Your task to perform on an android device: open app "Truecaller" (install if not already installed) and go to login screen Image 0: 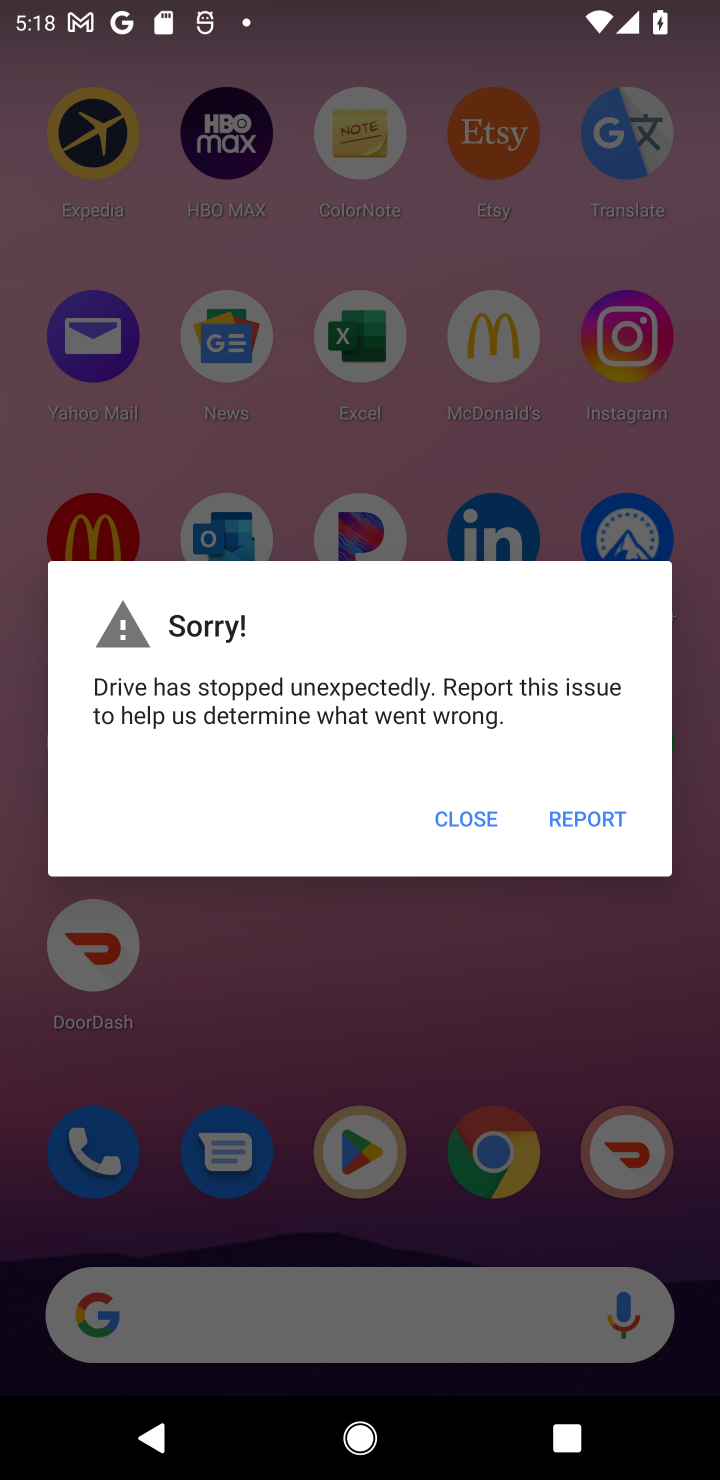
Step 0: click (457, 795)
Your task to perform on an android device: open app "Truecaller" (install if not already installed) and go to login screen Image 1: 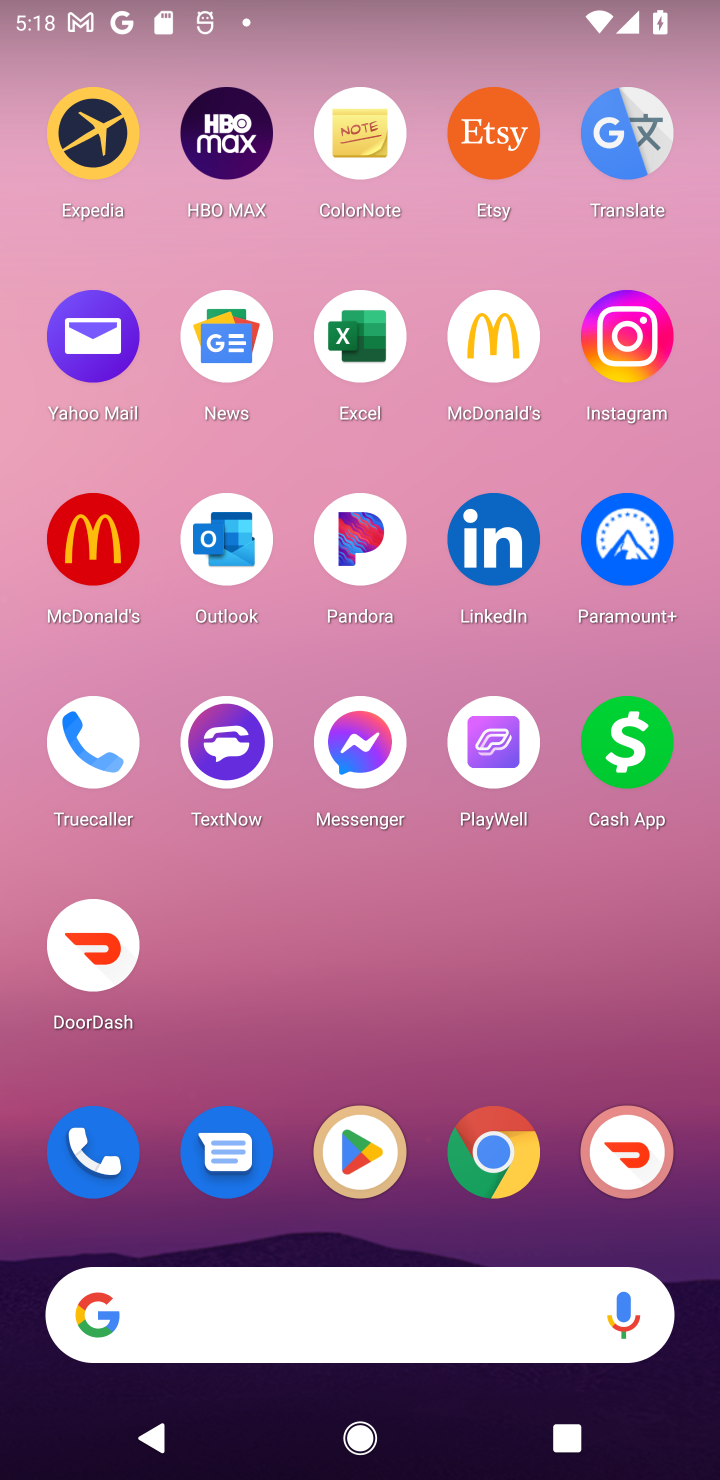
Step 1: click (378, 1184)
Your task to perform on an android device: open app "Truecaller" (install if not already installed) and go to login screen Image 2: 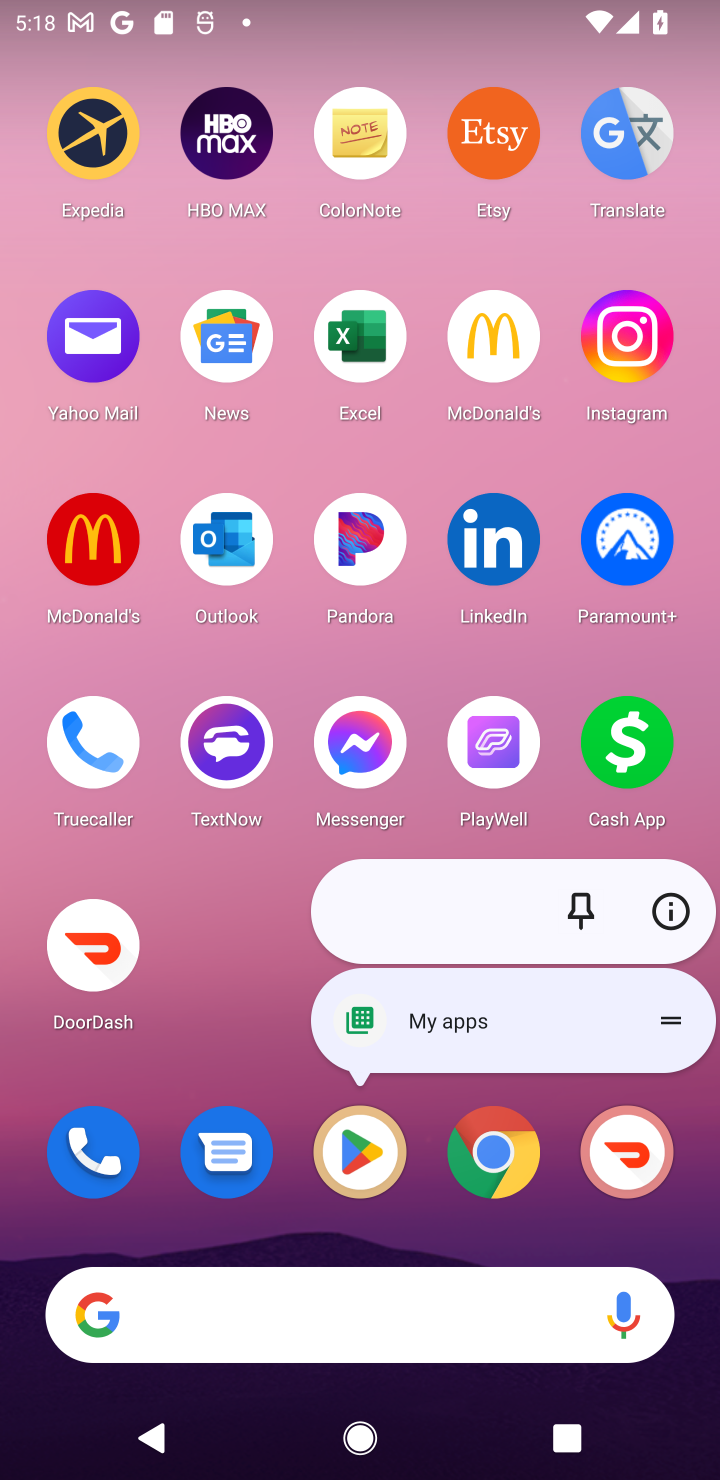
Step 2: click (381, 1160)
Your task to perform on an android device: open app "Truecaller" (install if not already installed) and go to login screen Image 3: 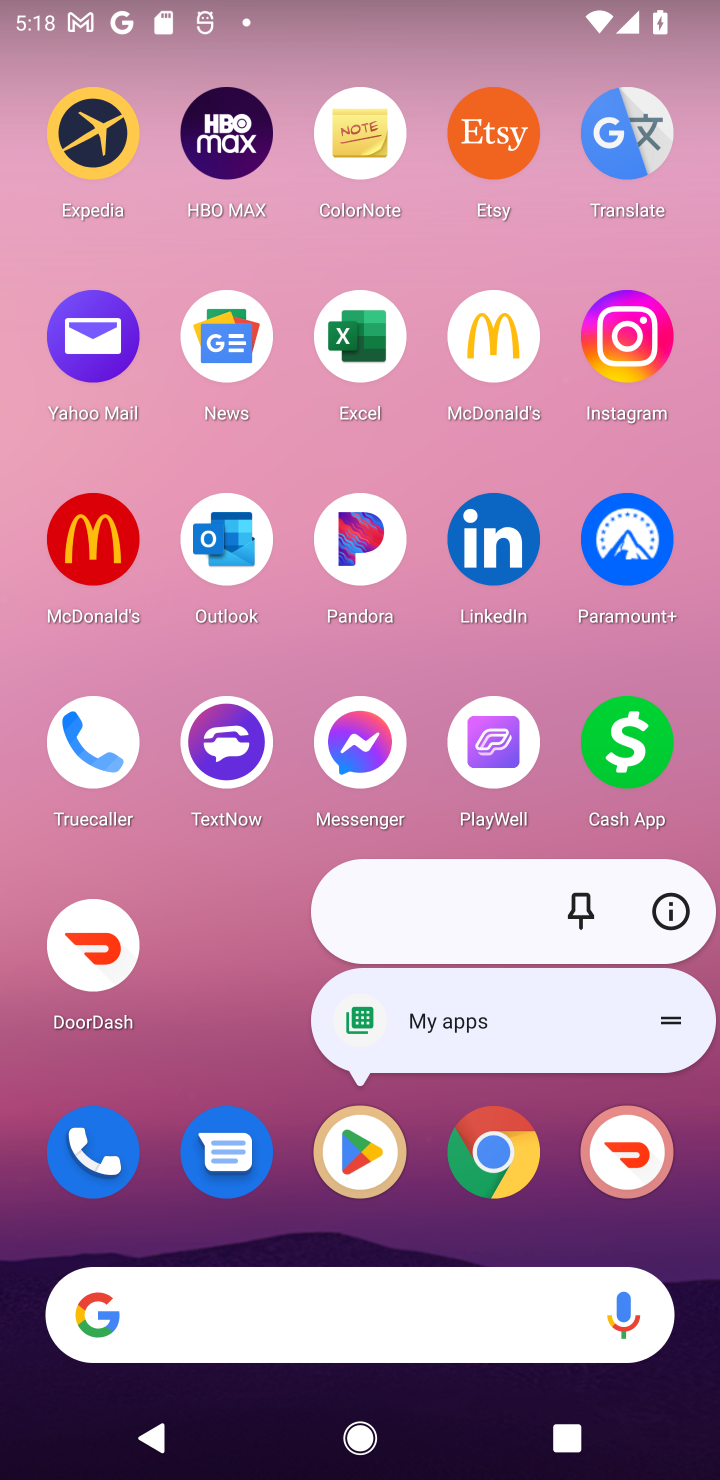
Step 3: click (354, 1162)
Your task to perform on an android device: open app "Truecaller" (install if not already installed) and go to login screen Image 4: 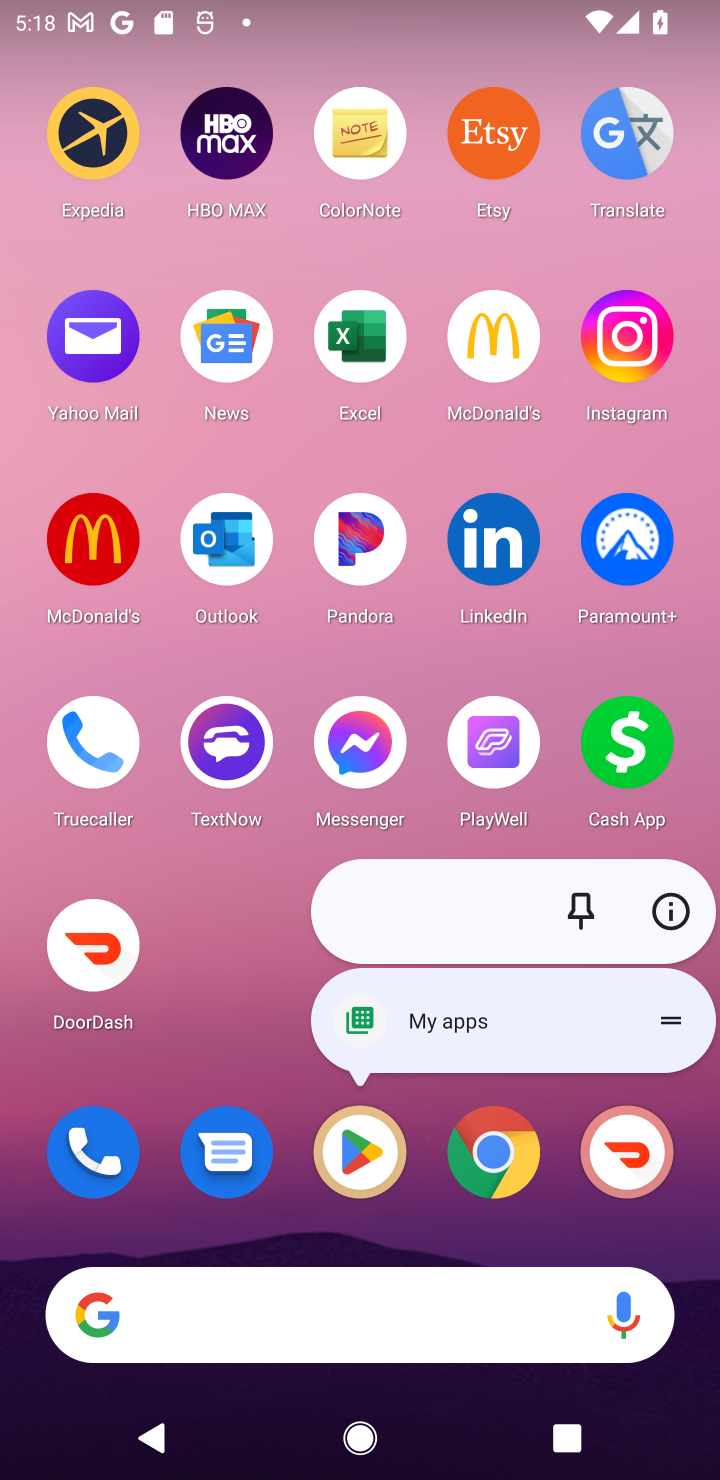
Step 4: click (353, 1160)
Your task to perform on an android device: open app "Truecaller" (install if not already installed) and go to login screen Image 5: 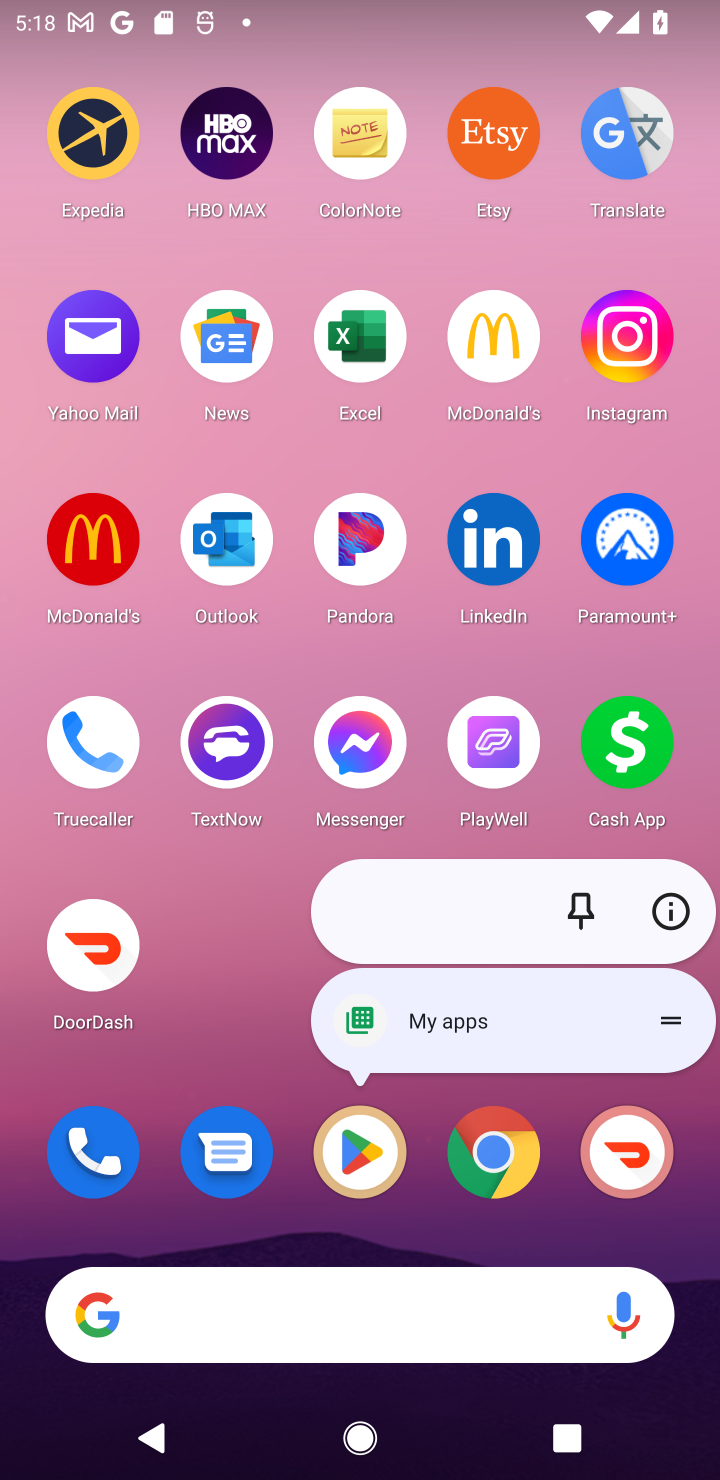
Step 5: click (353, 1160)
Your task to perform on an android device: open app "Truecaller" (install if not already installed) and go to login screen Image 6: 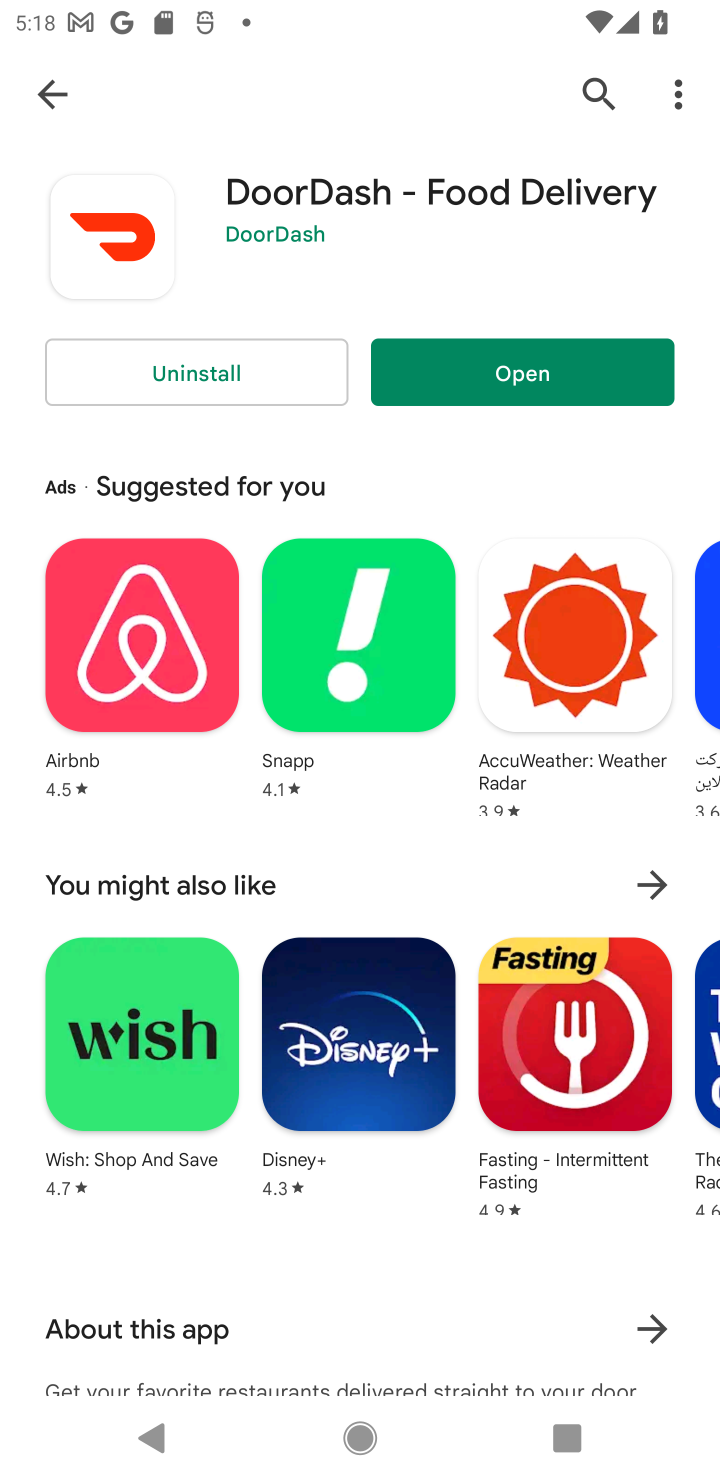
Step 6: click (44, 124)
Your task to perform on an android device: open app "Truecaller" (install if not already installed) and go to login screen Image 7: 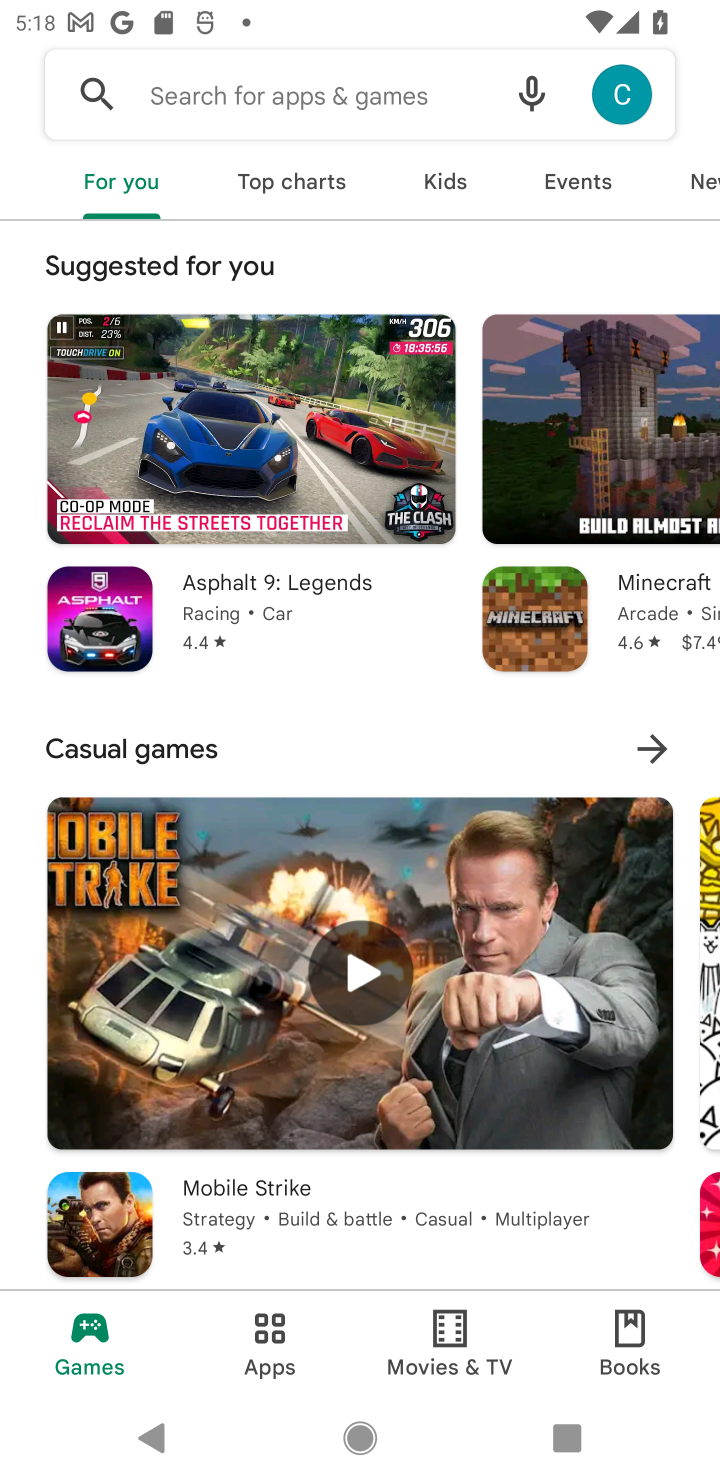
Step 7: click (128, 95)
Your task to perform on an android device: open app "Truecaller" (install if not already installed) and go to login screen Image 8: 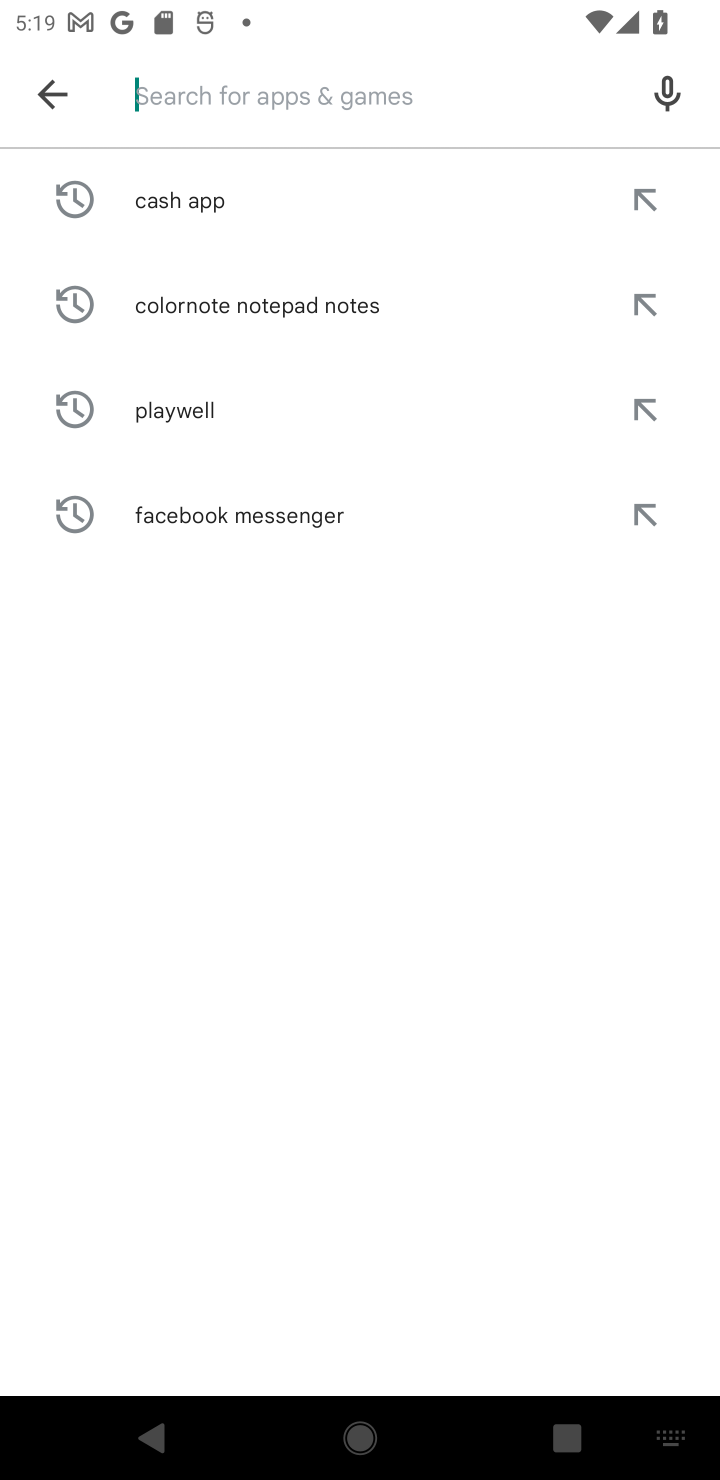
Step 8: type "Truecaller"
Your task to perform on an android device: open app "Truecaller" (install if not already installed) and go to login screen Image 9: 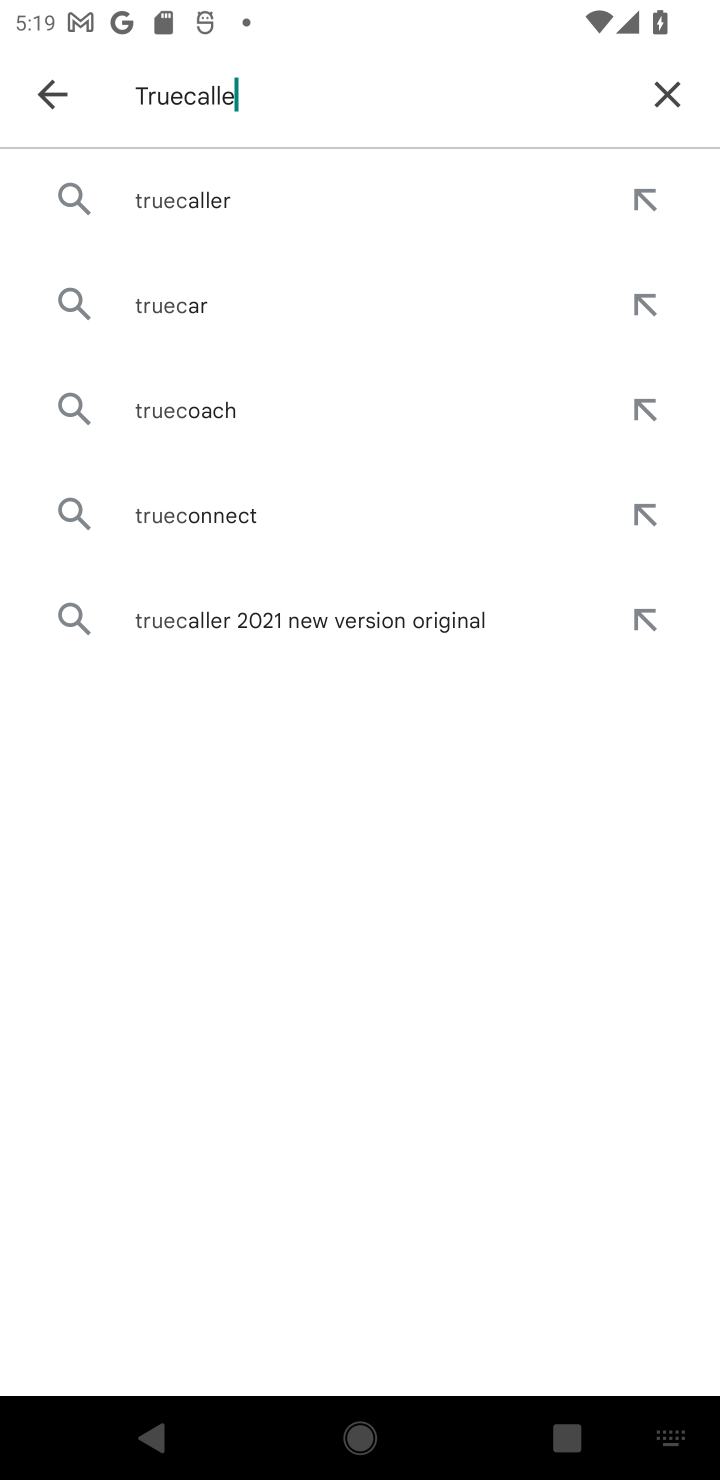
Step 9: type ""
Your task to perform on an android device: open app "Truecaller" (install if not already installed) and go to login screen Image 10: 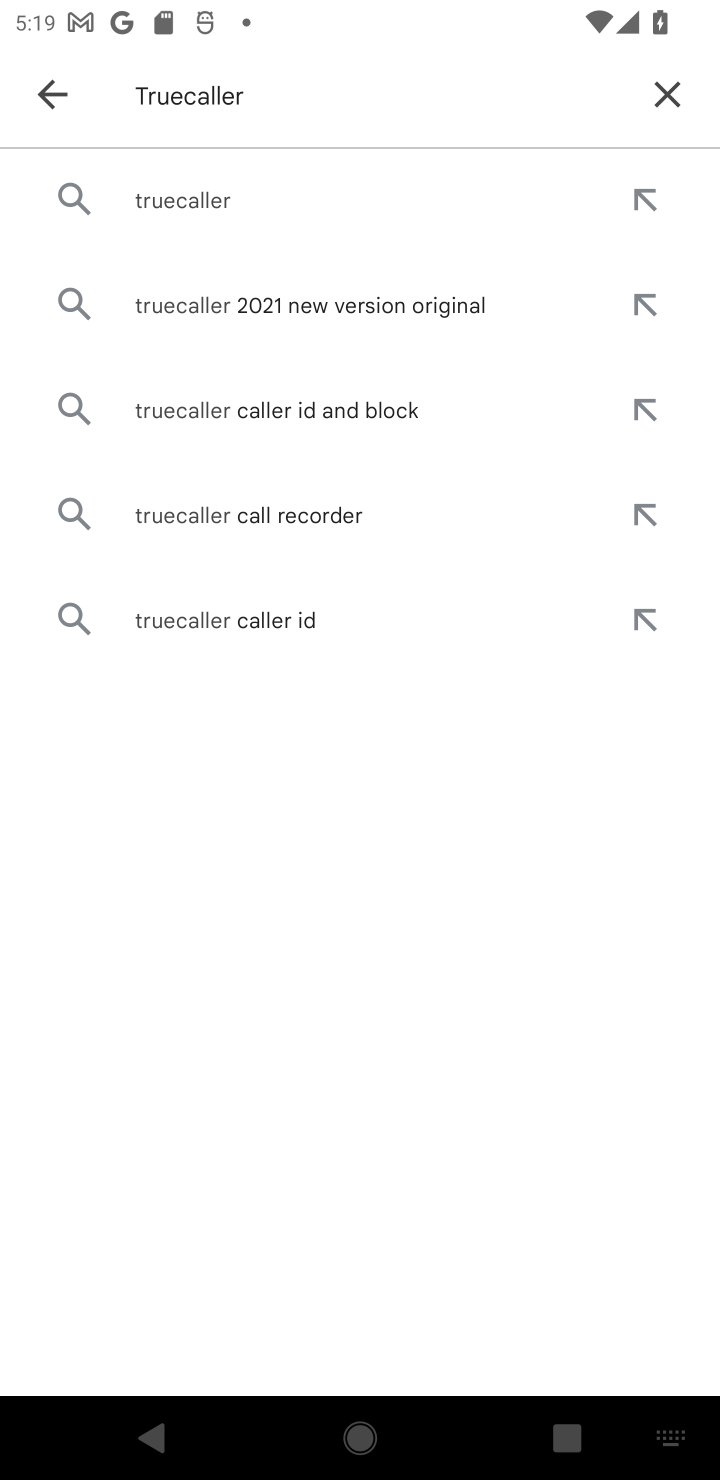
Step 10: click (146, 223)
Your task to perform on an android device: open app "Truecaller" (install if not already installed) and go to login screen Image 11: 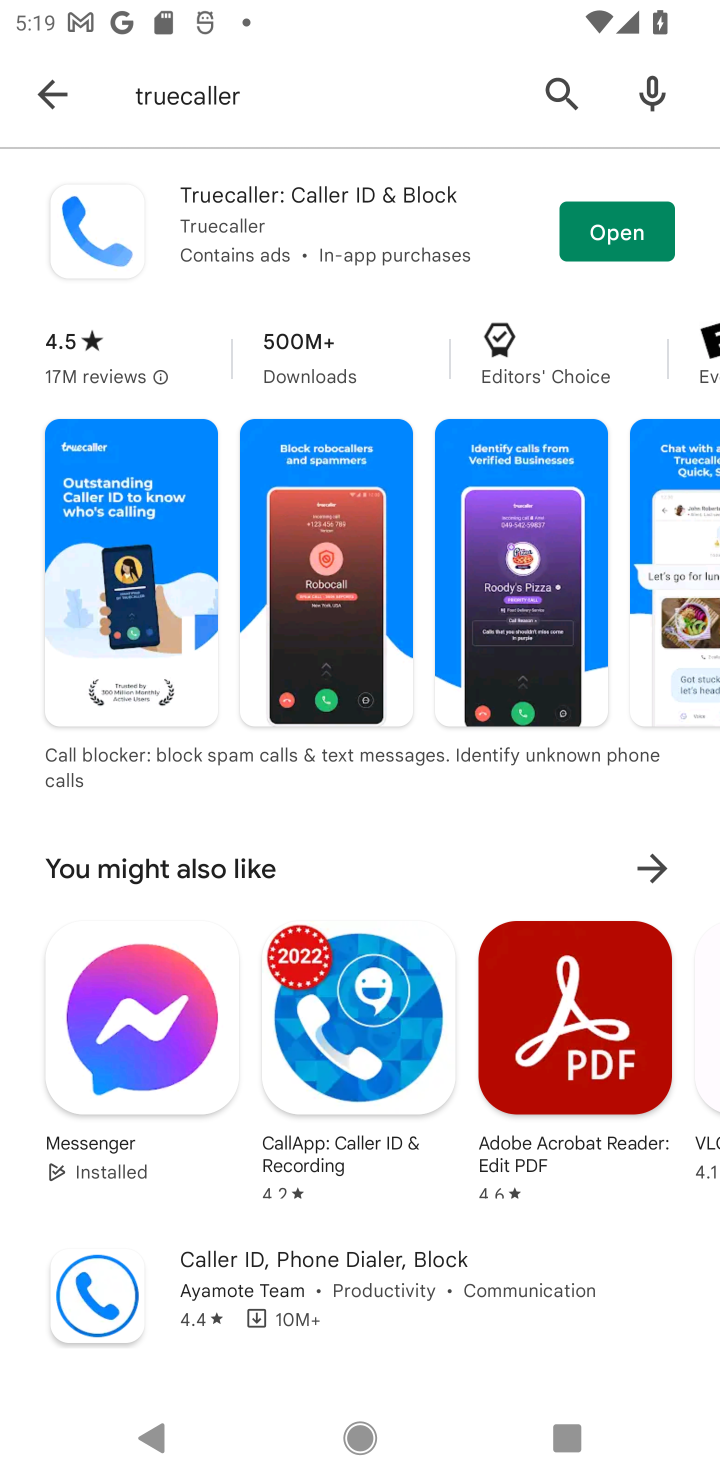
Step 11: click (649, 246)
Your task to perform on an android device: open app "Truecaller" (install if not already installed) and go to login screen Image 12: 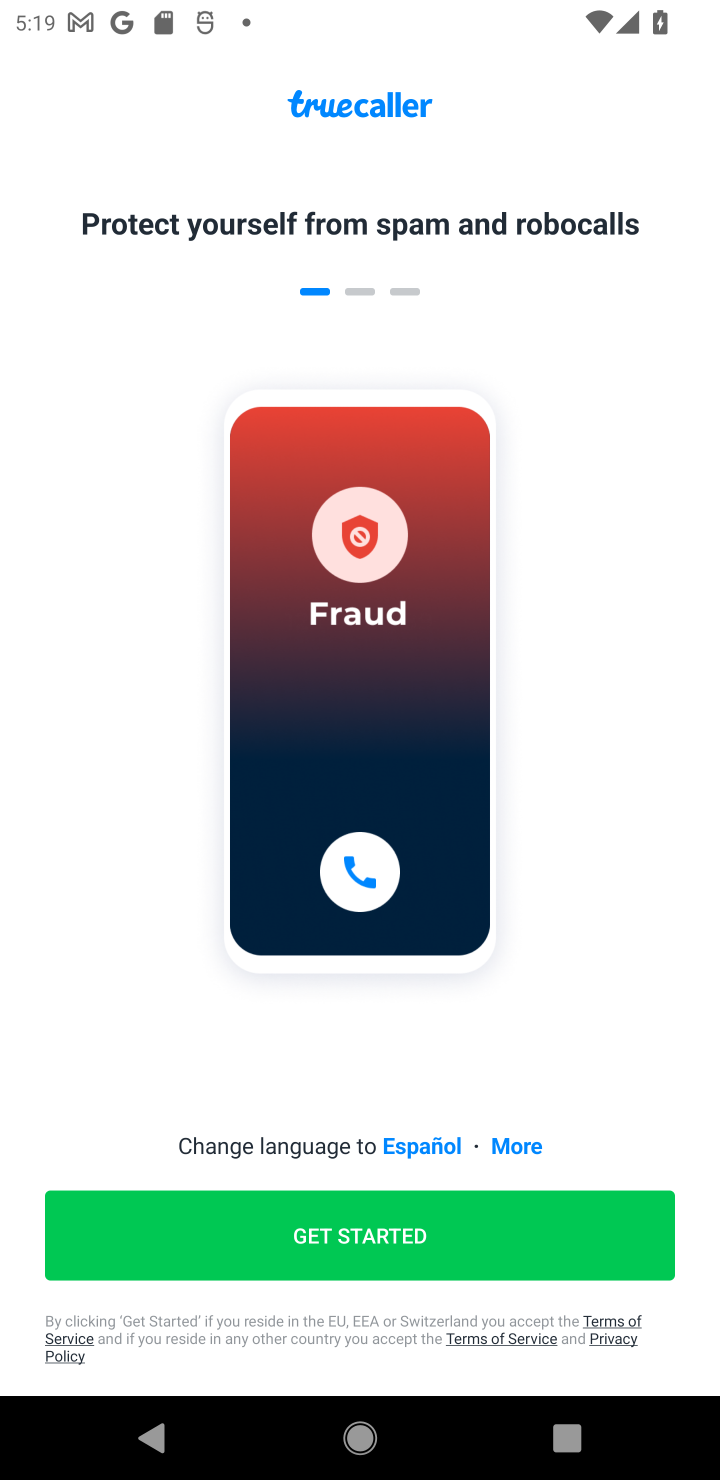
Step 12: click (263, 1243)
Your task to perform on an android device: open app "Truecaller" (install if not already installed) and go to login screen Image 13: 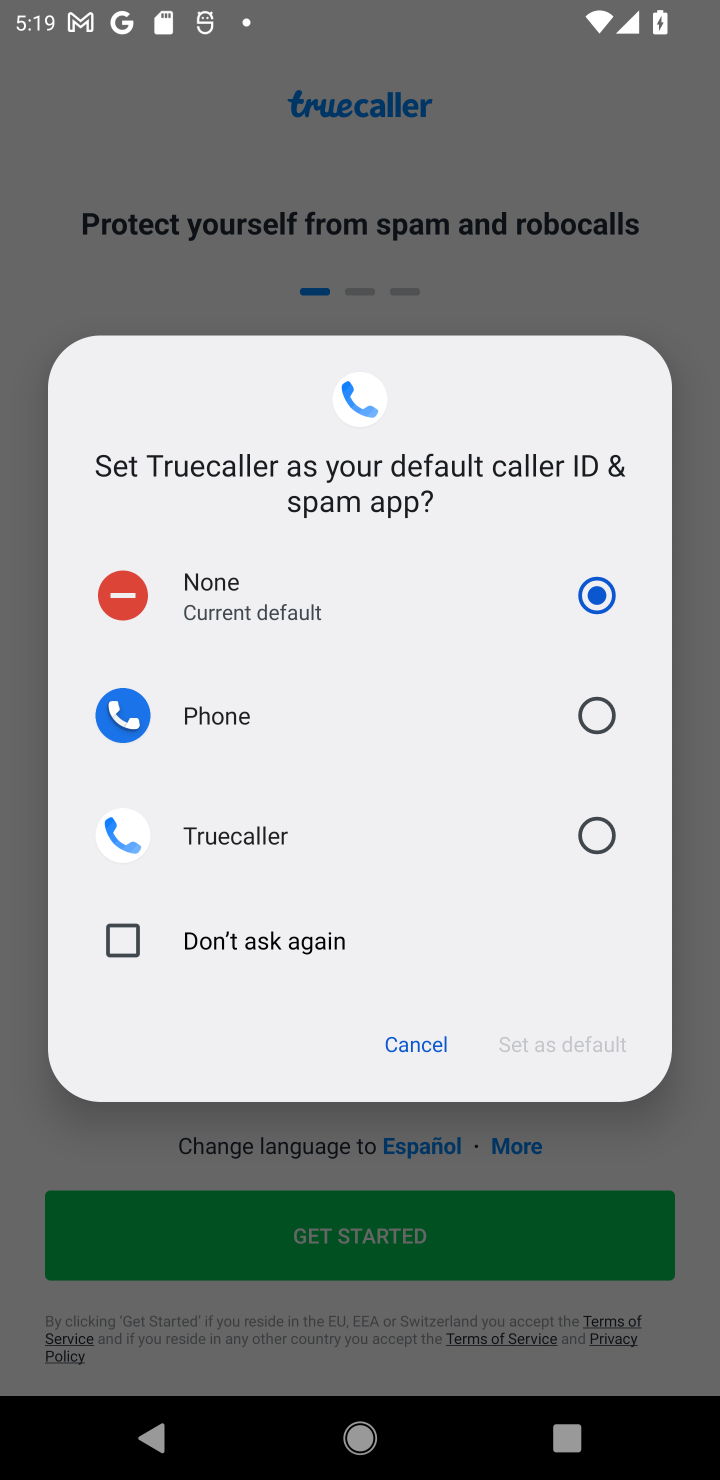
Step 13: click (124, 941)
Your task to perform on an android device: open app "Truecaller" (install if not already installed) and go to login screen Image 14: 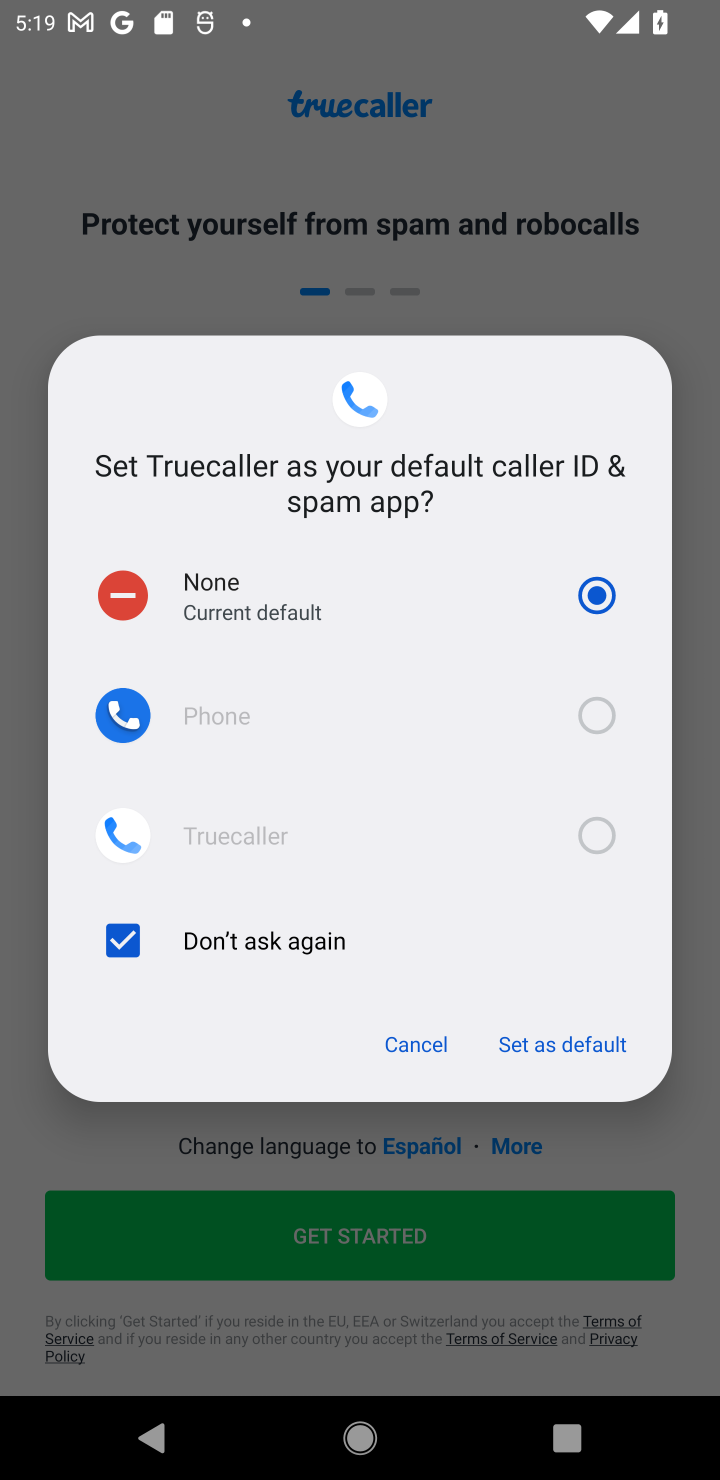
Step 14: click (586, 1047)
Your task to perform on an android device: open app "Truecaller" (install if not already installed) and go to login screen Image 15: 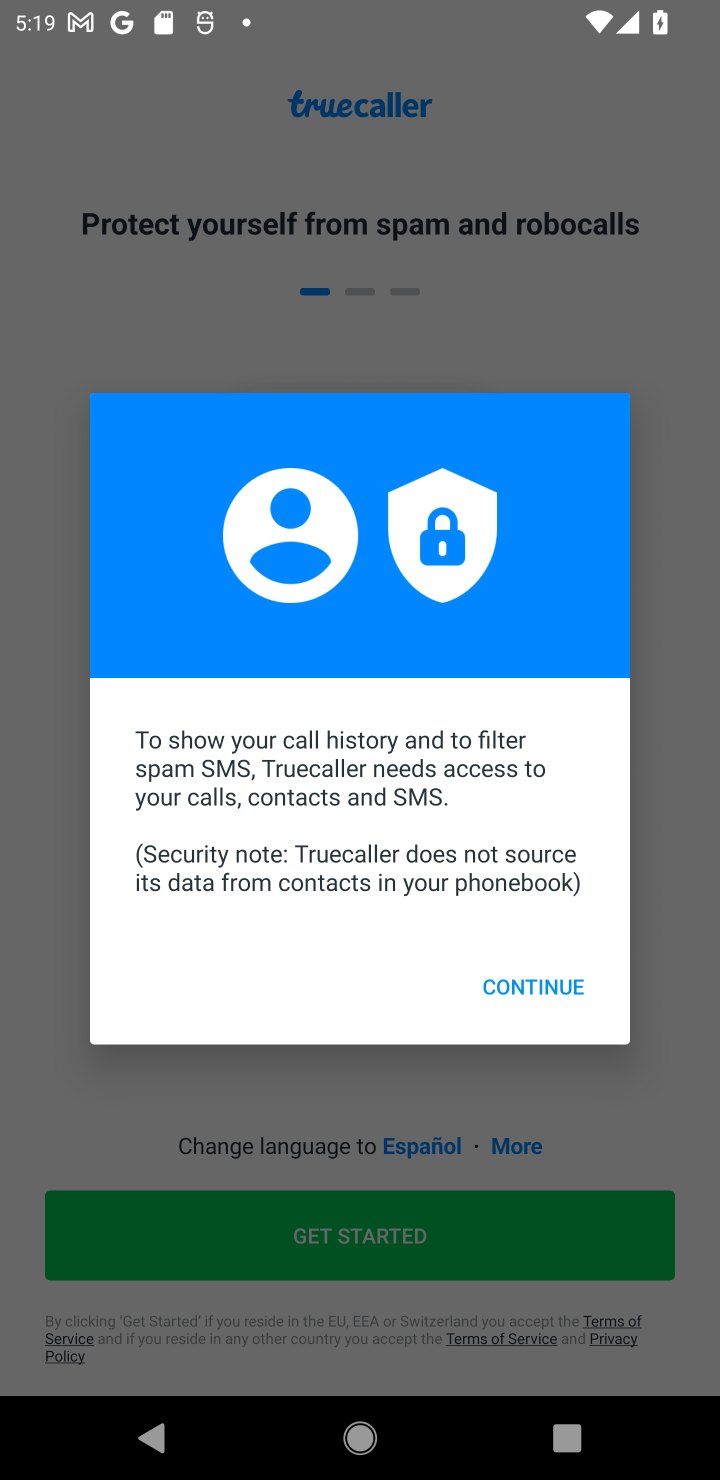
Step 15: click (511, 996)
Your task to perform on an android device: open app "Truecaller" (install if not already installed) and go to login screen Image 16: 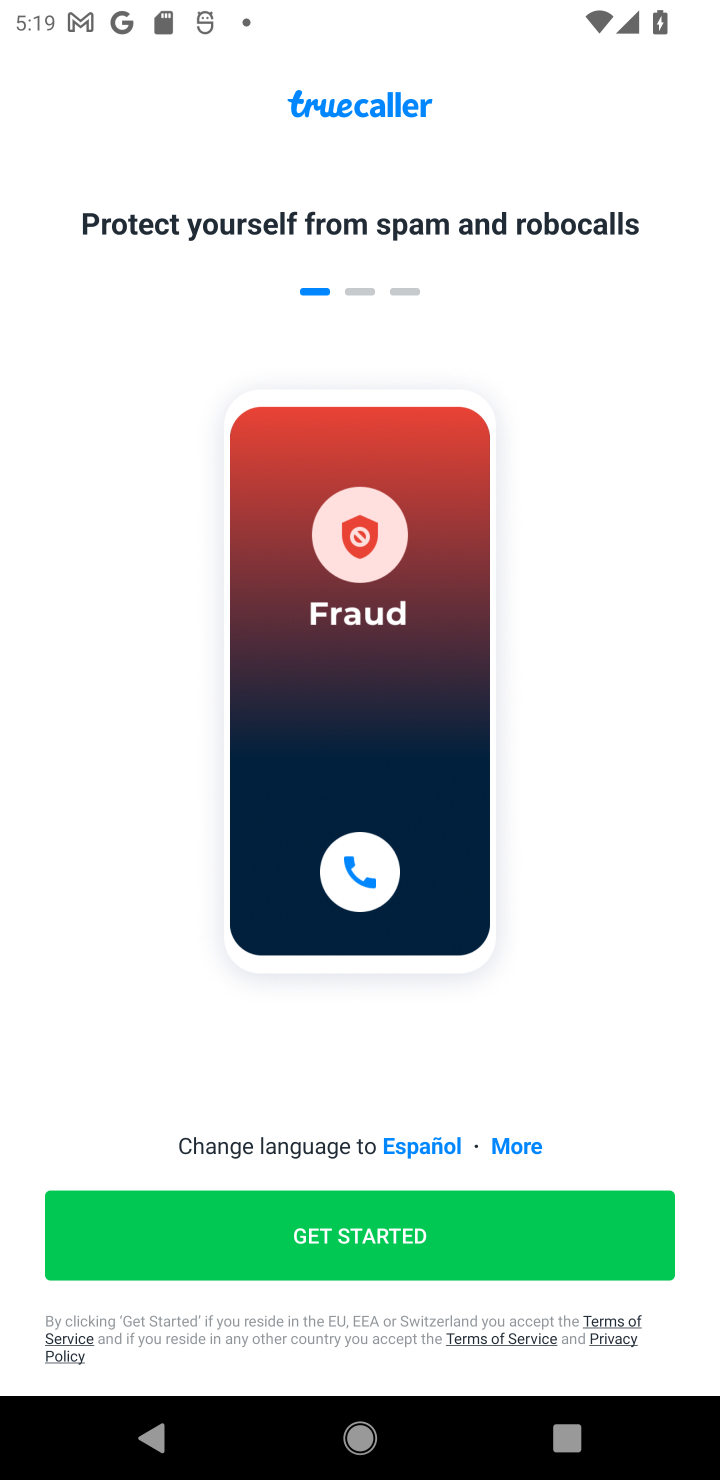
Step 16: click (410, 1219)
Your task to perform on an android device: open app "Truecaller" (install if not already installed) and go to login screen Image 17: 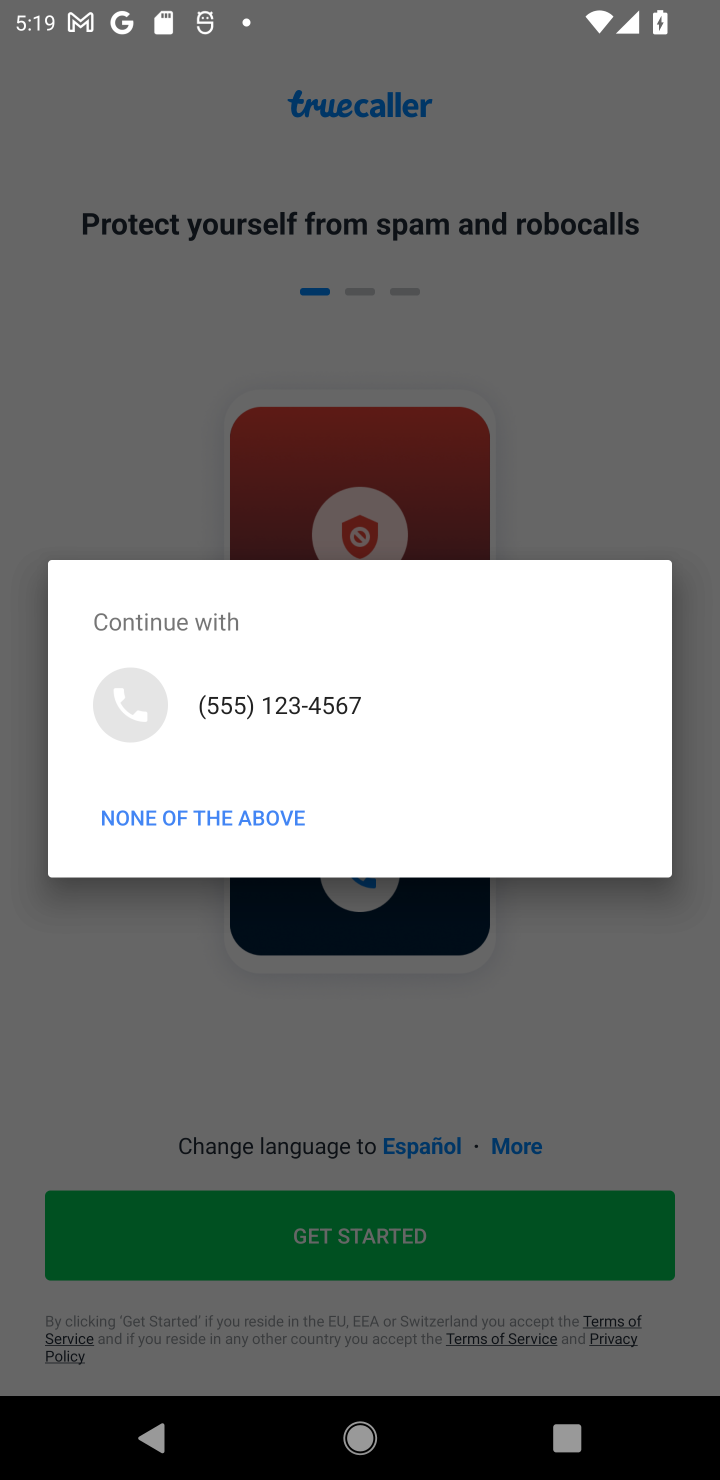
Step 17: click (271, 700)
Your task to perform on an android device: open app "Truecaller" (install if not already installed) and go to login screen Image 18: 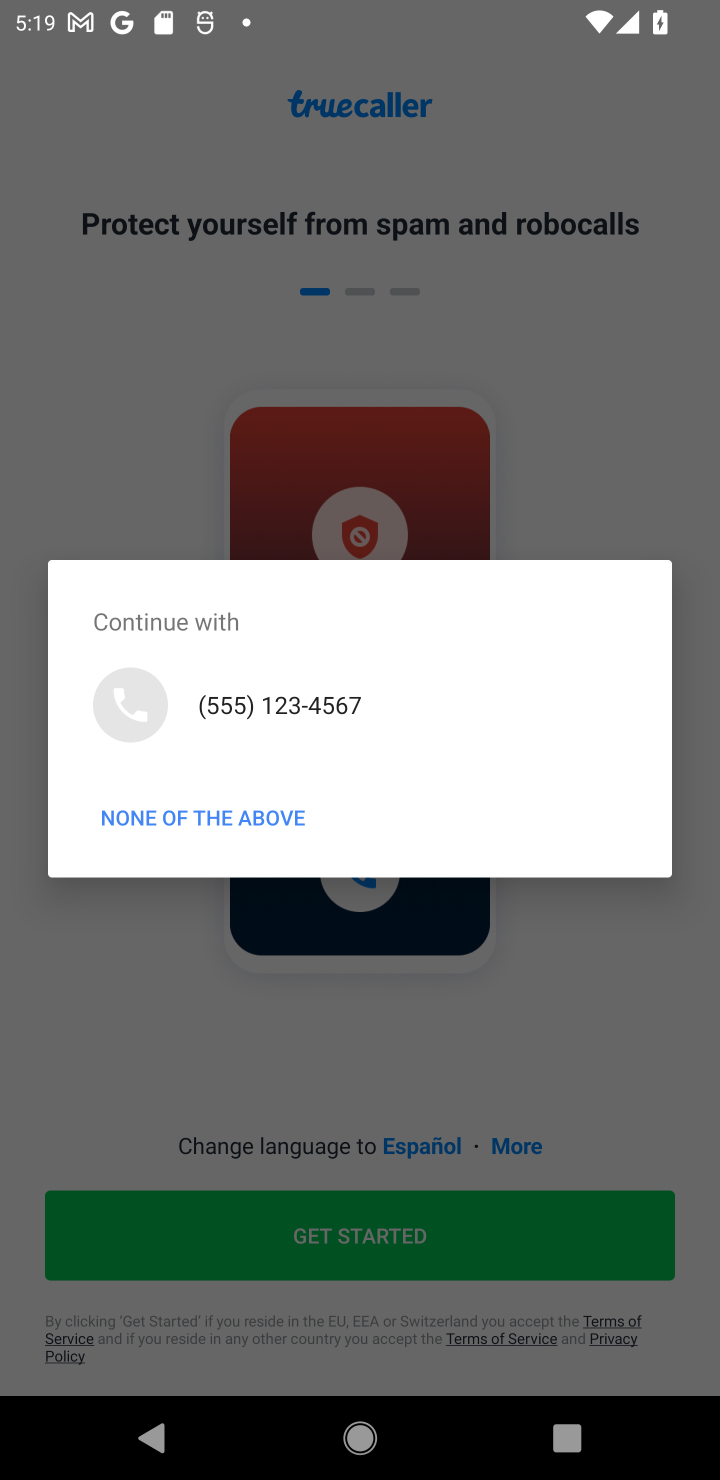
Step 18: click (236, 820)
Your task to perform on an android device: open app "Truecaller" (install if not already installed) and go to login screen Image 19: 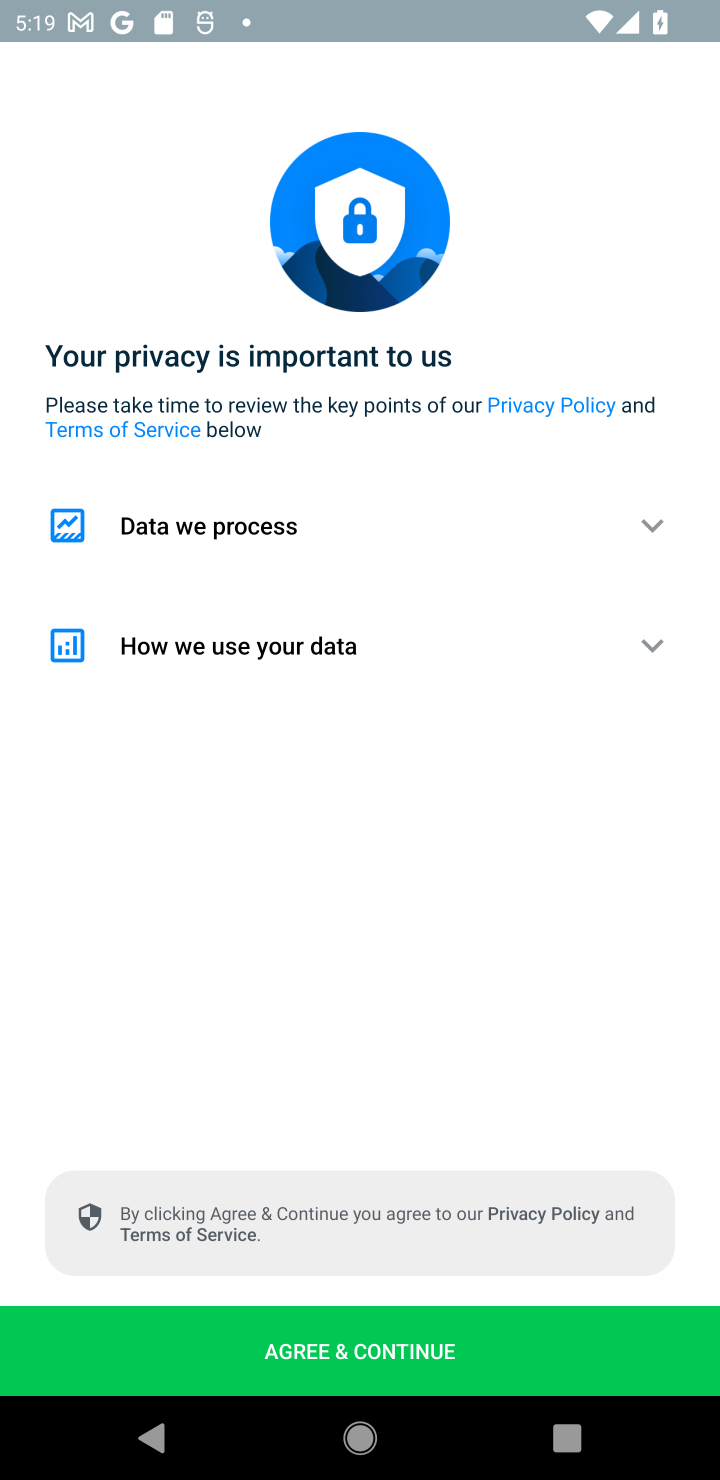
Step 19: click (329, 1357)
Your task to perform on an android device: open app "Truecaller" (install if not already installed) and go to login screen Image 20: 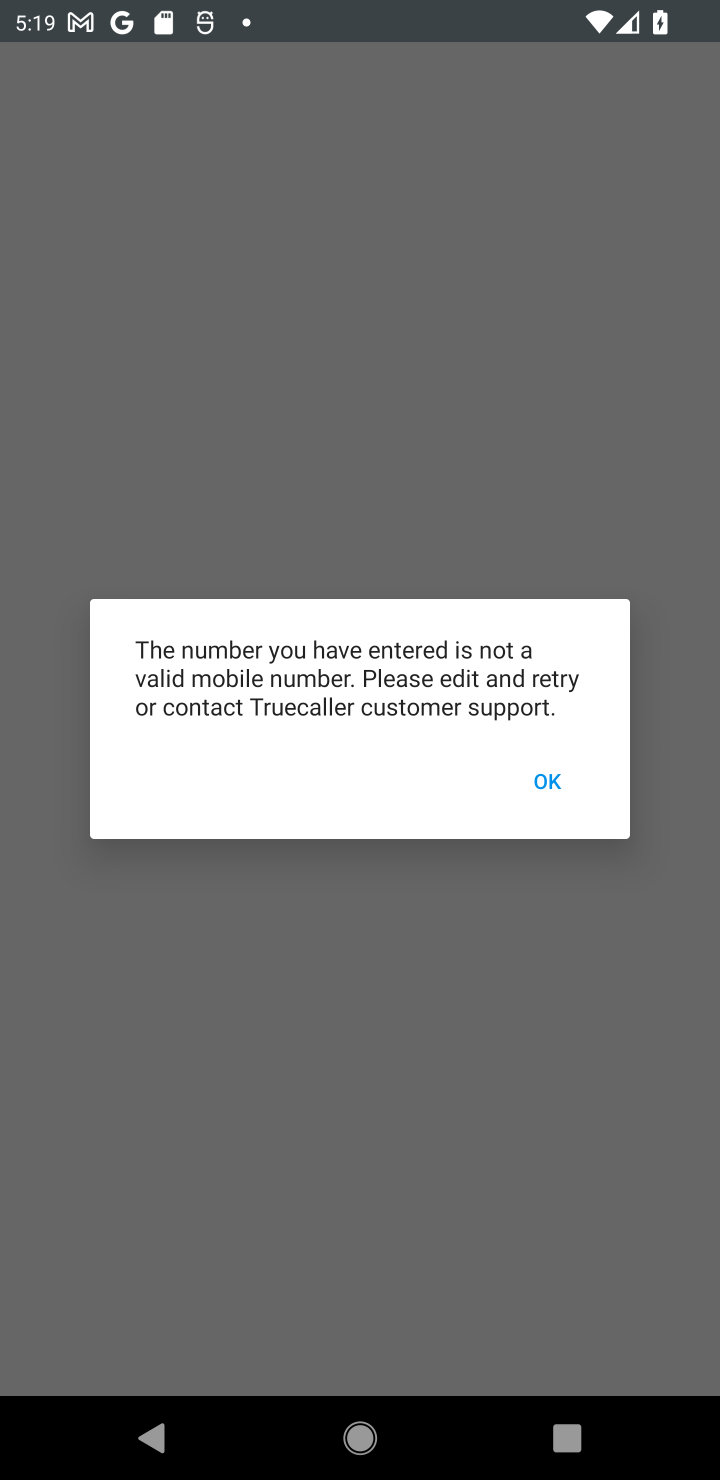
Step 20: click (540, 777)
Your task to perform on an android device: open app "Truecaller" (install if not already installed) and go to login screen Image 21: 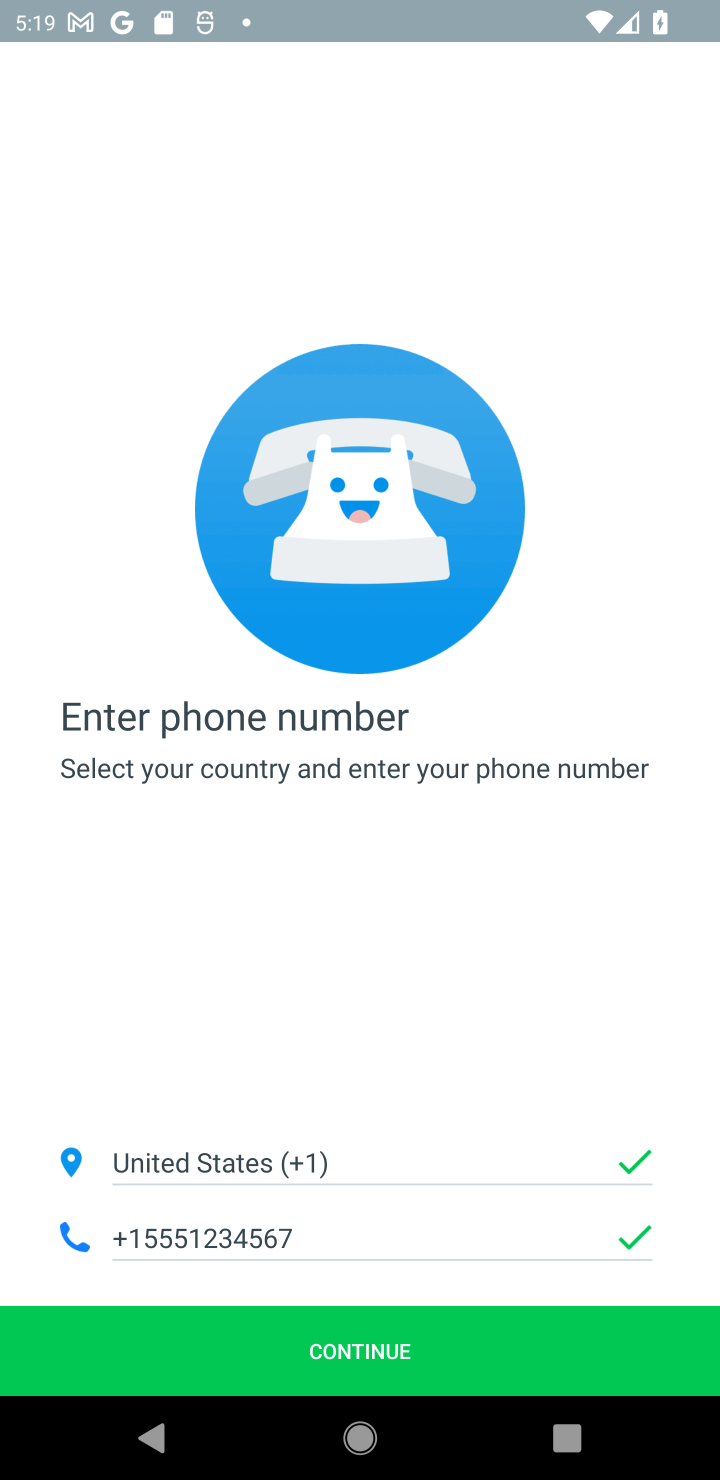
Step 21: task complete